Your task to perform on an android device: toggle translation in the chrome app Image 0: 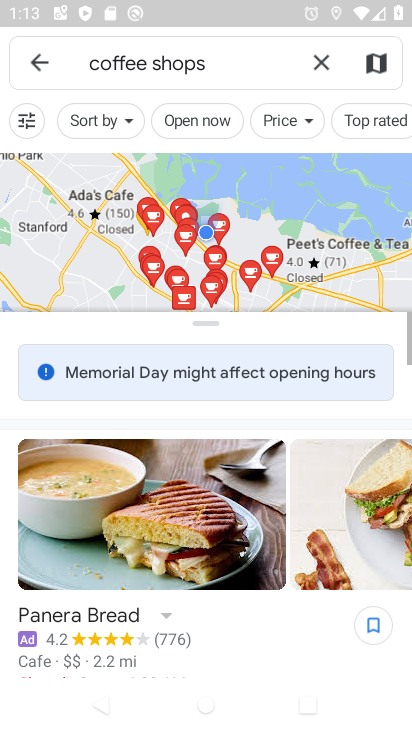
Step 0: press home button
Your task to perform on an android device: toggle translation in the chrome app Image 1: 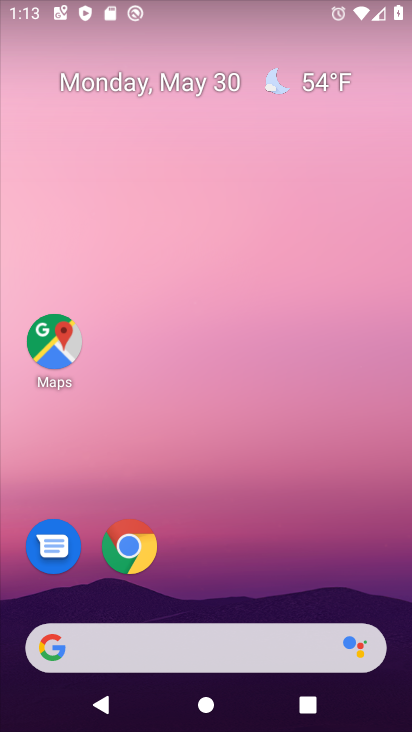
Step 1: click (139, 559)
Your task to perform on an android device: toggle translation in the chrome app Image 2: 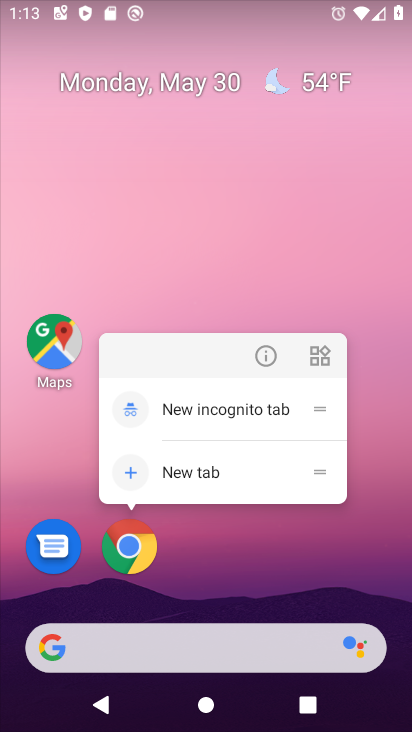
Step 2: click (154, 551)
Your task to perform on an android device: toggle translation in the chrome app Image 3: 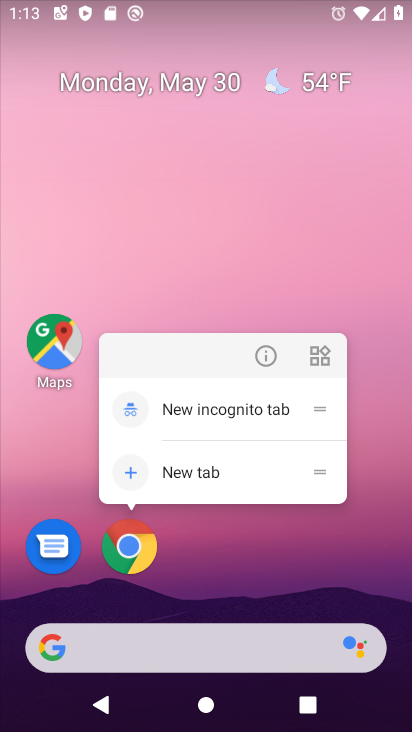
Step 3: click (135, 547)
Your task to perform on an android device: toggle translation in the chrome app Image 4: 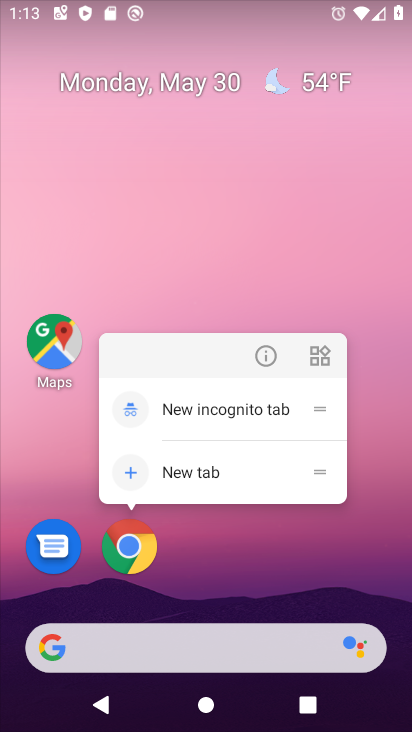
Step 4: click (209, 563)
Your task to perform on an android device: toggle translation in the chrome app Image 5: 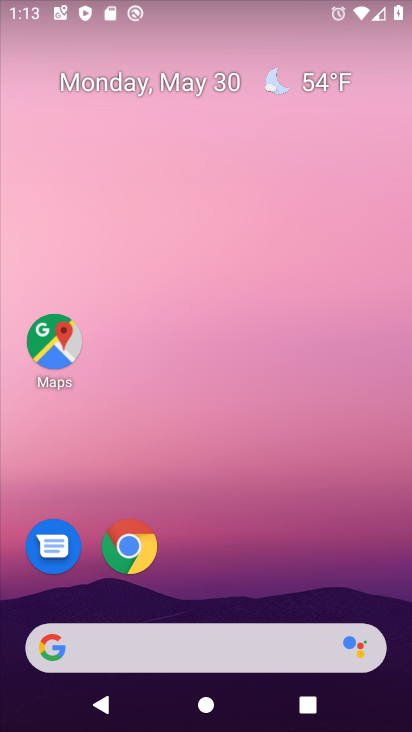
Step 5: drag from (286, 611) to (285, 189)
Your task to perform on an android device: toggle translation in the chrome app Image 6: 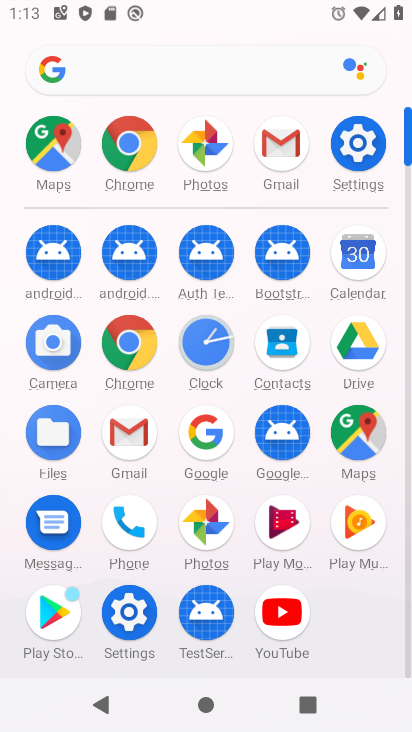
Step 6: click (130, 158)
Your task to perform on an android device: toggle translation in the chrome app Image 7: 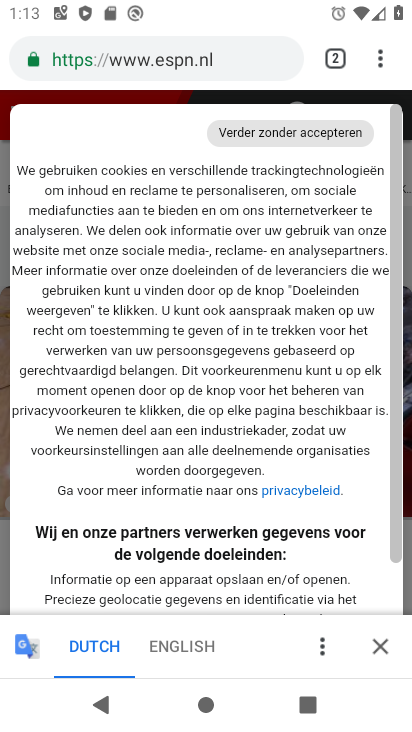
Step 7: drag from (378, 62) to (174, 570)
Your task to perform on an android device: toggle translation in the chrome app Image 8: 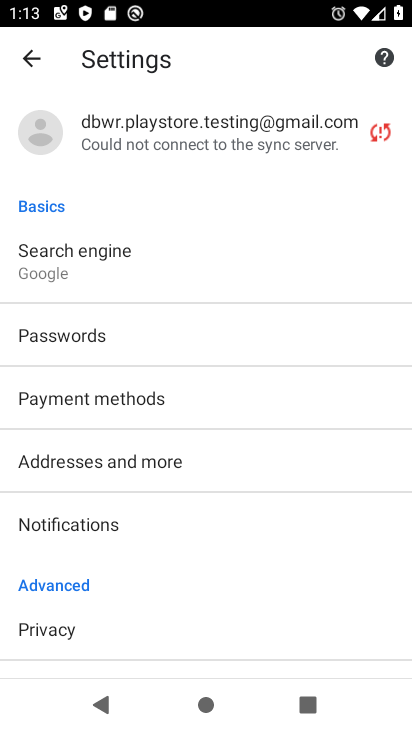
Step 8: drag from (176, 587) to (170, 179)
Your task to perform on an android device: toggle translation in the chrome app Image 9: 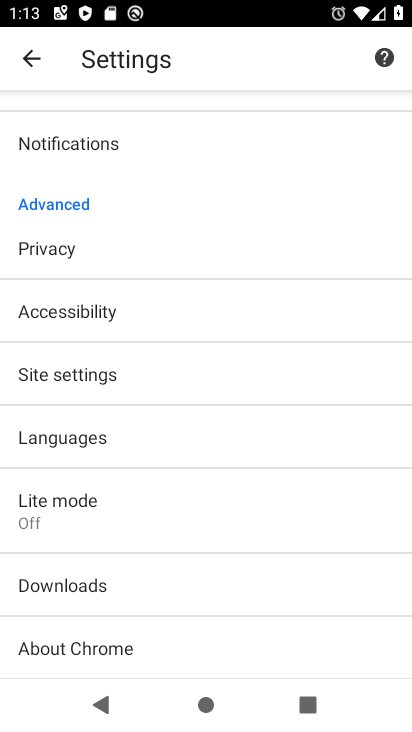
Step 9: click (54, 442)
Your task to perform on an android device: toggle translation in the chrome app Image 10: 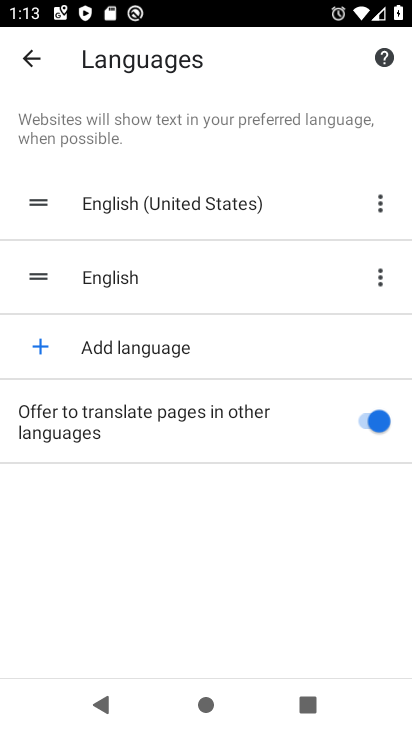
Step 10: click (380, 415)
Your task to perform on an android device: toggle translation in the chrome app Image 11: 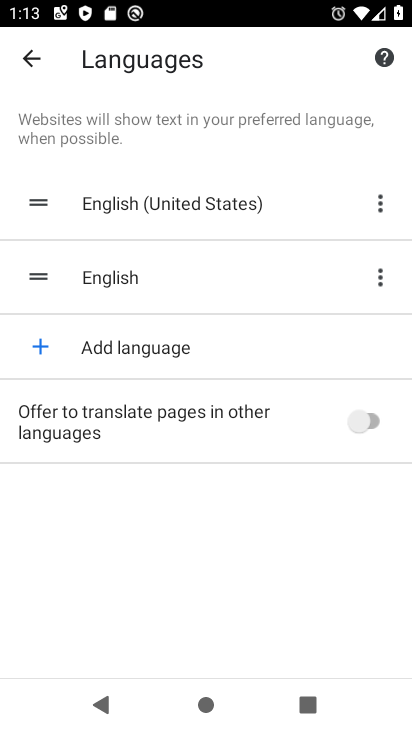
Step 11: task complete